Your task to perform on an android device: turn off airplane mode Image 0: 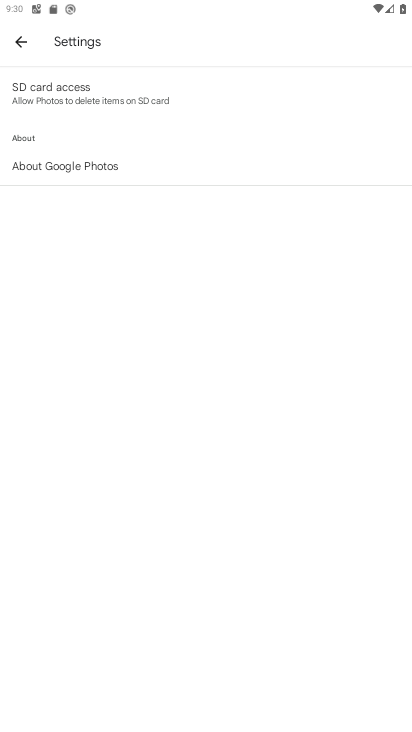
Step 0: press home button
Your task to perform on an android device: turn off airplane mode Image 1: 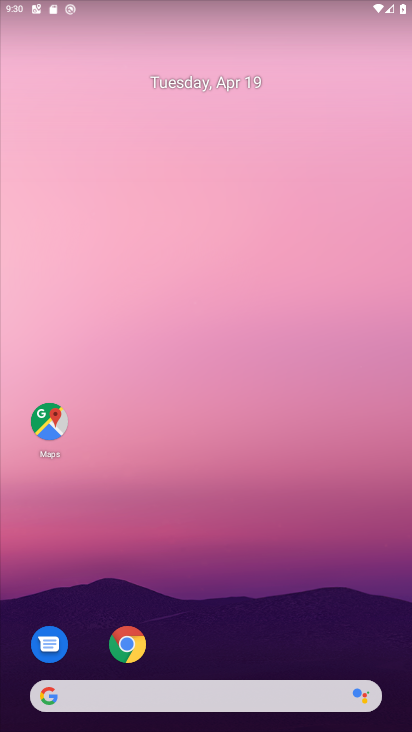
Step 1: task complete